Your task to perform on an android device: Find coffee shops on Maps Image 0: 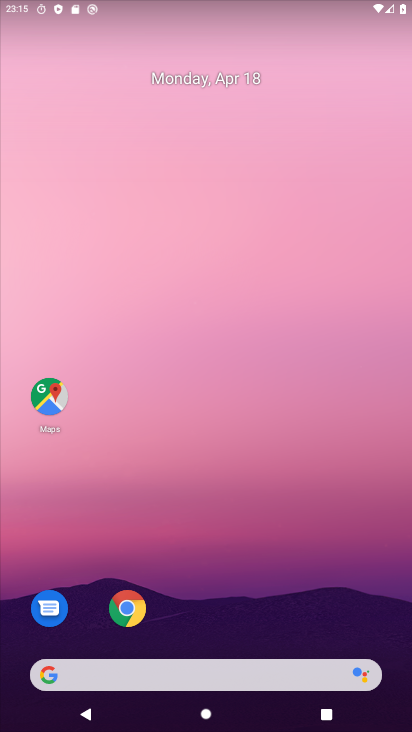
Step 0: click (50, 392)
Your task to perform on an android device: Find coffee shops on Maps Image 1: 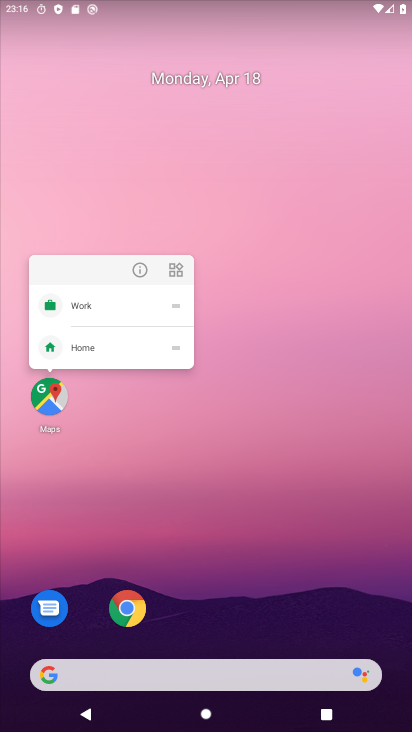
Step 1: click (252, 427)
Your task to perform on an android device: Find coffee shops on Maps Image 2: 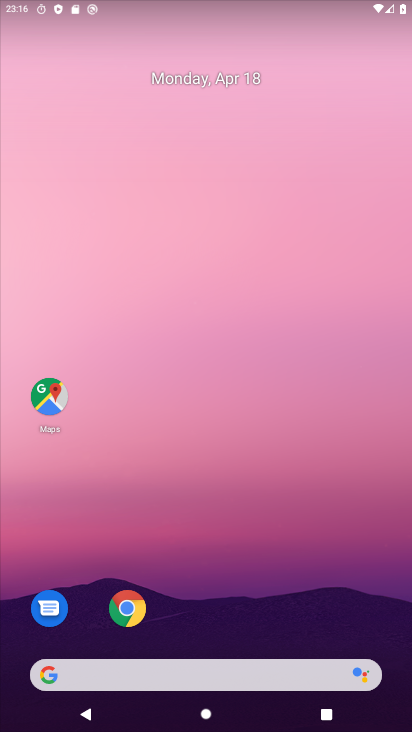
Step 2: click (49, 398)
Your task to perform on an android device: Find coffee shops on Maps Image 3: 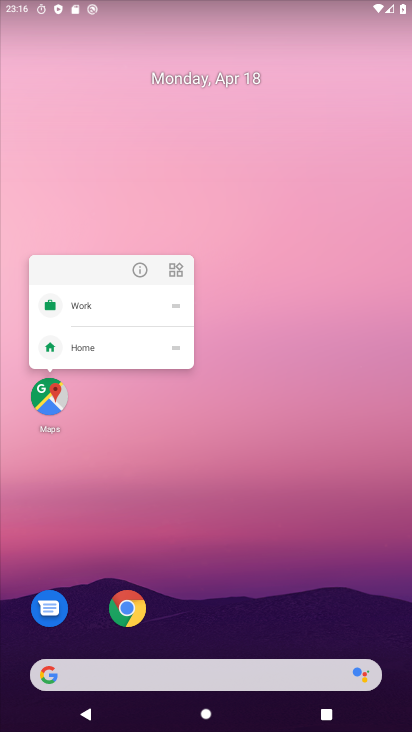
Step 3: click (49, 398)
Your task to perform on an android device: Find coffee shops on Maps Image 4: 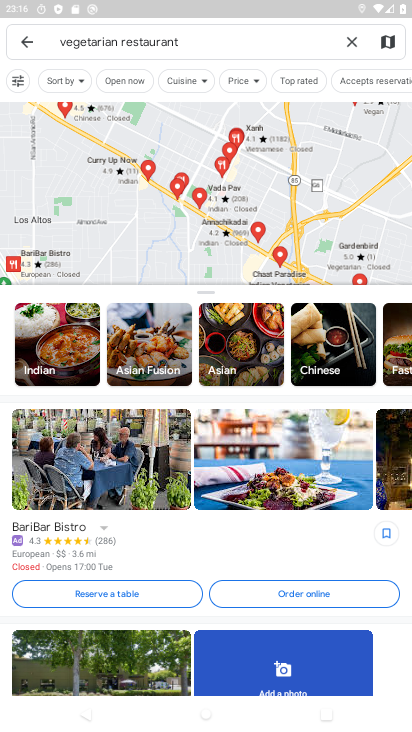
Step 4: click (353, 44)
Your task to perform on an android device: Find coffee shops on Maps Image 5: 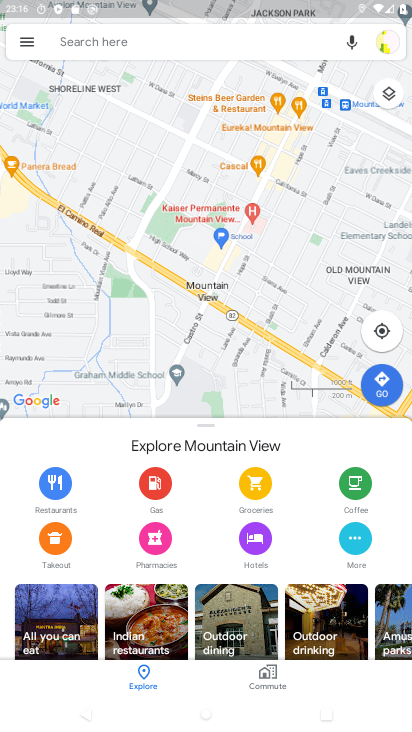
Step 5: click (223, 42)
Your task to perform on an android device: Find coffee shops on Maps Image 6: 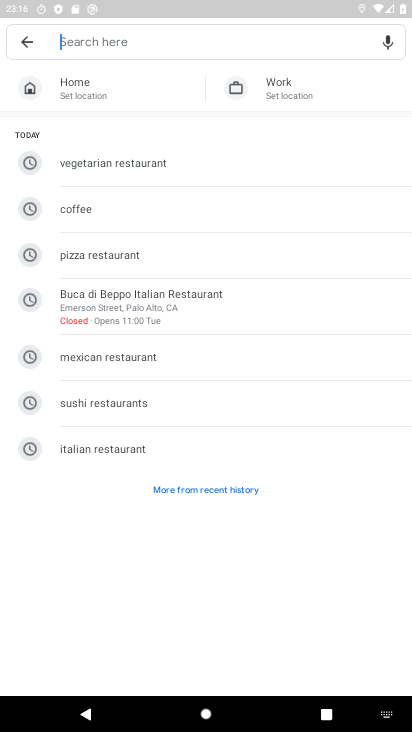
Step 6: click (93, 207)
Your task to perform on an android device: Find coffee shops on Maps Image 7: 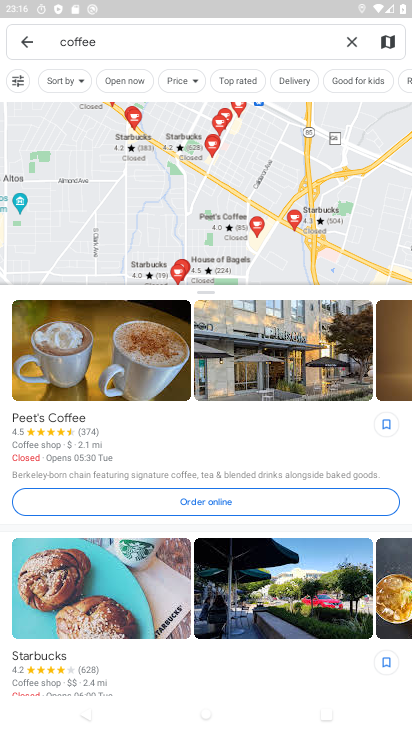
Step 7: task complete